Your task to perform on an android device: Open Google Chrome and click the shortcut for Amazon.com Image 0: 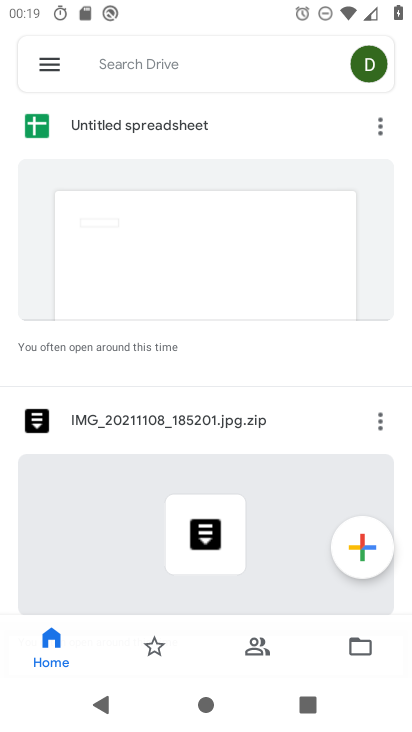
Step 0: drag from (247, 579) to (383, 116)
Your task to perform on an android device: Open Google Chrome and click the shortcut for Amazon.com Image 1: 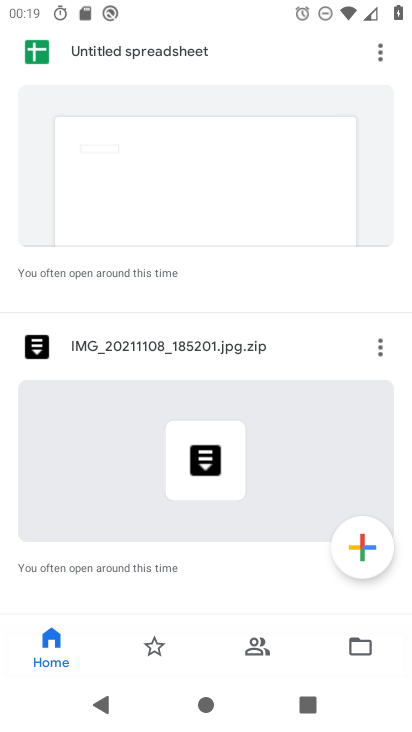
Step 1: press home button
Your task to perform on an android device: Open Google Chrome and click the shortcut for Amazon.com Image 2: 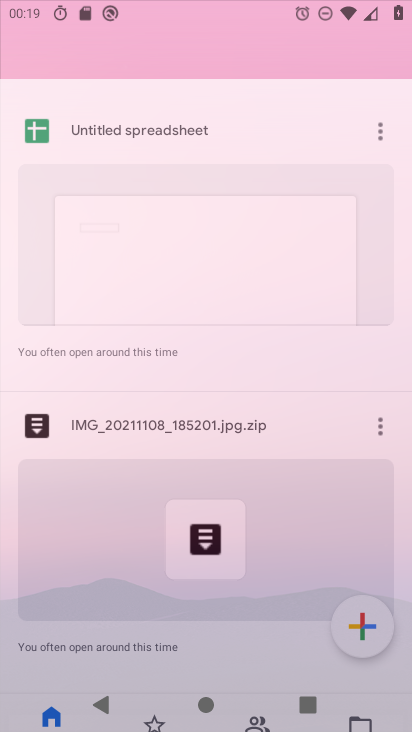
Step 2: drag from (195, 557) to (250, 159)
Your task to perform on an android device: Open Google Chrome and click the shortcut for Amazon.com Image 3: 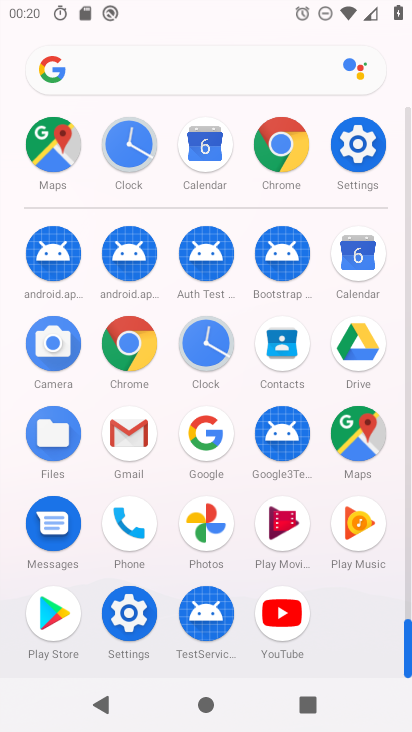
Step 3: click (113, 345)
Your task to perform on an android device: Open Google Chrome and click the shortcut for Amazon.com Image 4: 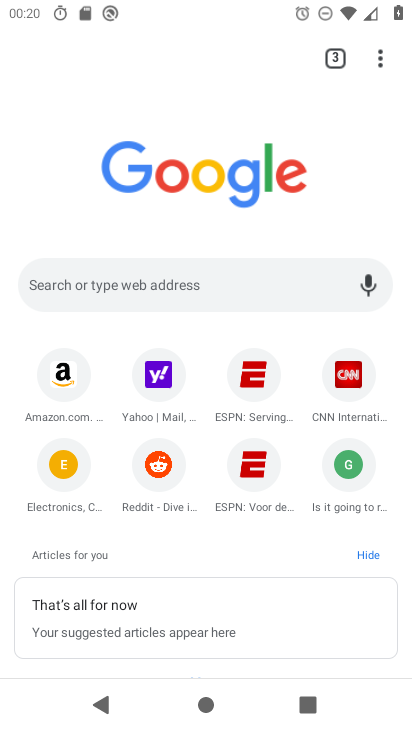
Step 4: click (70, 366)
Your task to perform on an android device: Open Google Chrome and click the shortcut for Amazon.com Image 5: 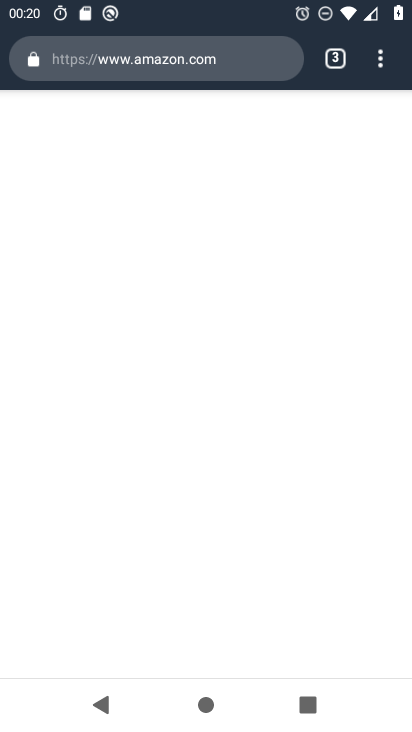
Step 5: task complete